Your task to perform on an android device: Open wifi settings Image 0: 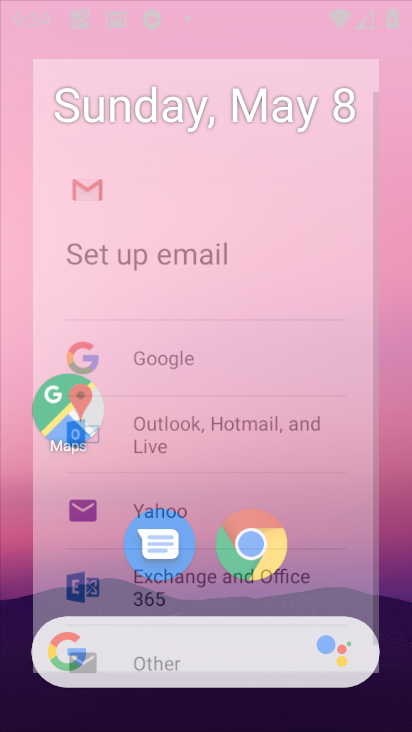
Step 0: drag from (339, 584) to (295, 293)
Your task to perform on an android device: Open wifi settings Image 1: 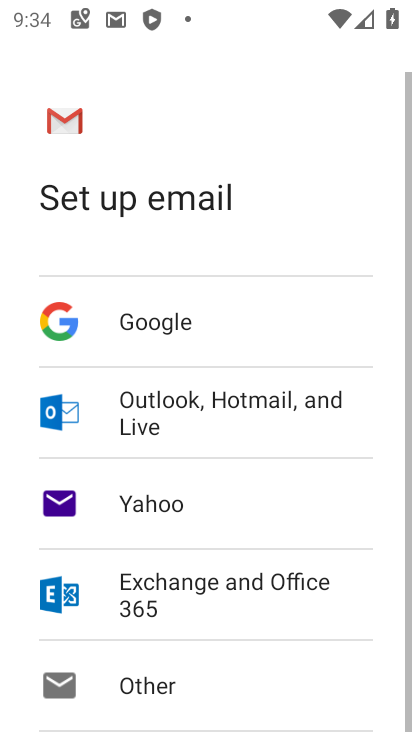
Step 1: press home button
Your task to perform on an android device: Open wifi settings Image 2: 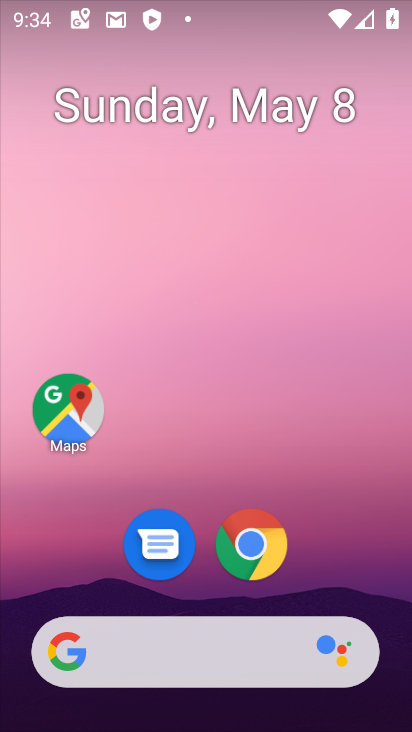
Step 2: drag from (342, 568) to (324, 52)
Your task to perform on an android device: Open wifi settings Image 3: 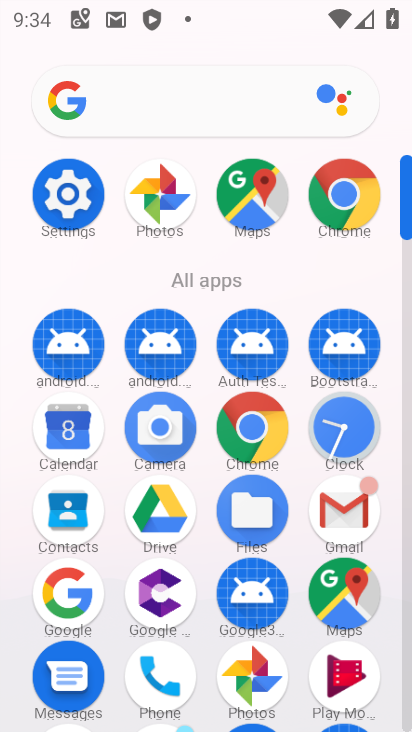
Step 3: click (58, 179)
Your task to perform on an android device: Open wifi settings Image 4: 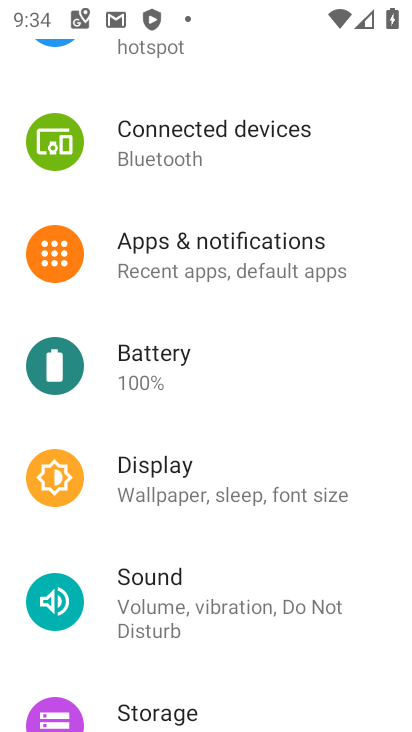
Step 4: drag from (223, 277) to (241, 604)
Your task to perform on an android device: Open wifi settings Image 5: 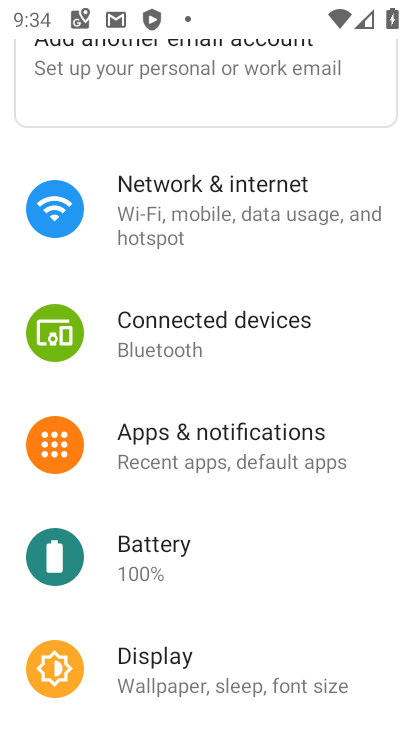
Step 5: click (248, 324)
Your task to perform on an android device: Open wifi settings Image 6: 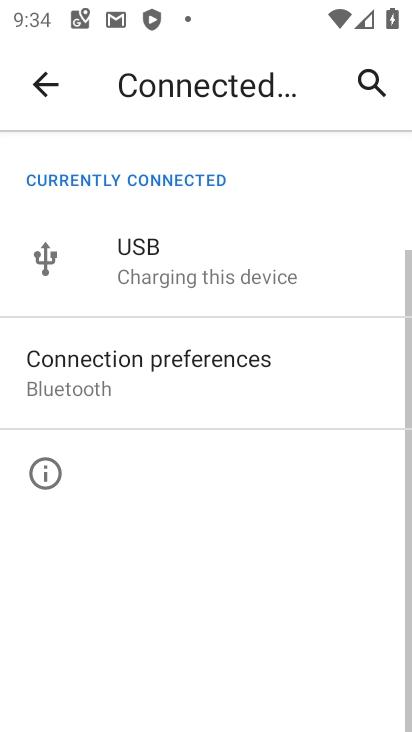
Step 6: click (78, 90)
Your task to perform on an android device: Open wifi settings Image 7: 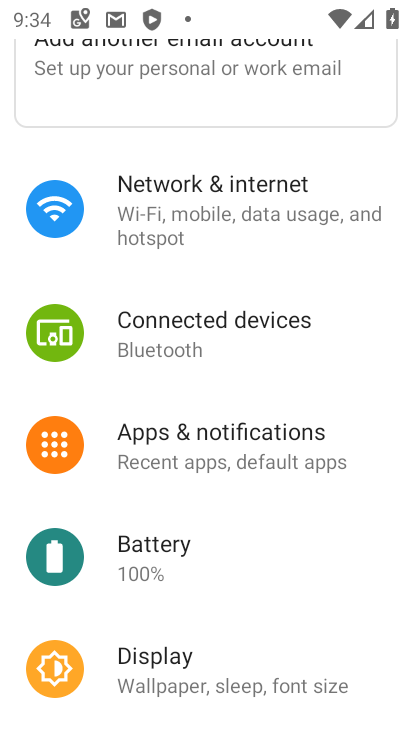
Step 7: click (170, 199)
Your task to perform on an android device: Open wifi settings Image 8: 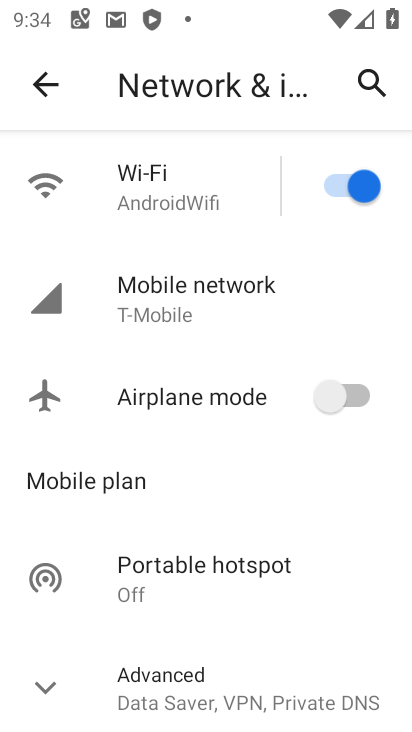
Step 8: task complete